Your task to perform on an android device: Open maps Image 0: 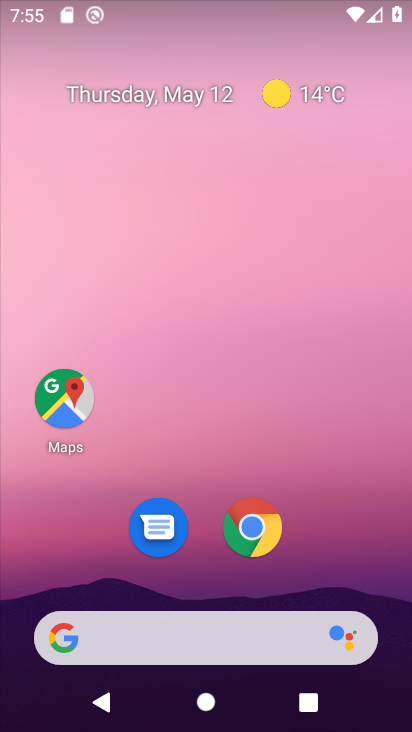
Step 0: drag from (83, 403) to (173, 211)
Your task to perform on an android device: Open maps Image 1: 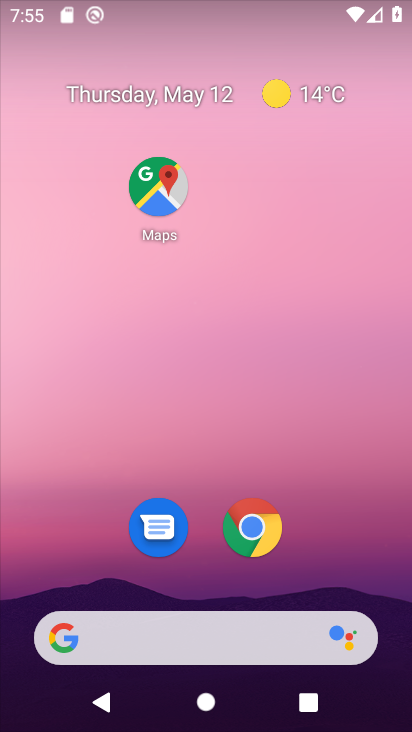
Step 1: click (160, 214)
Your task to perform on an android device: Open maps Image 2: 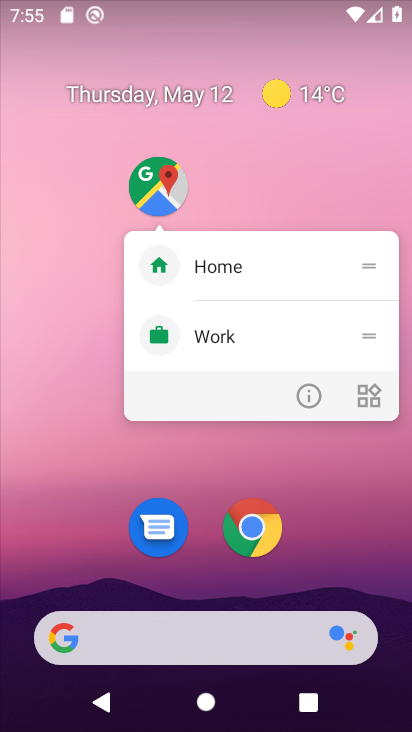
Step 2: click (178, 204)
Your task to perform on an android device: Open maps Image 3: 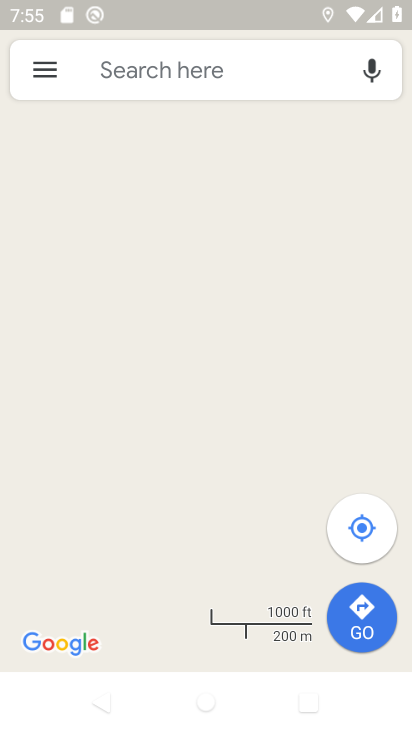
Step 3: task complete